Your task to perform on an android device: turn on sleep mode Image 0: 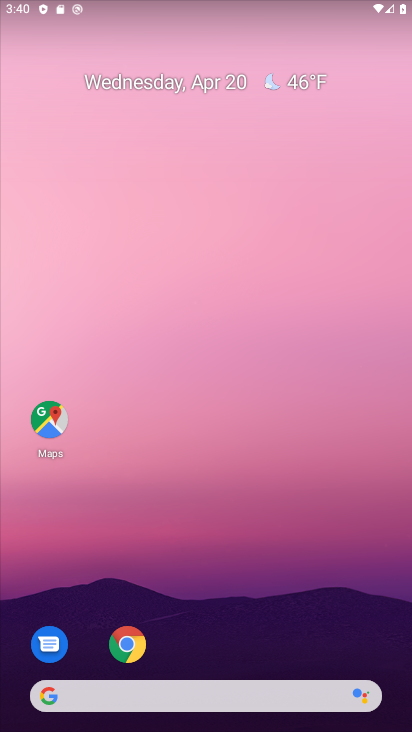
Step 0: drag from (209, 678) to (319, 48)
Your task to perform on an android device: turn on sleep mode Image 1: 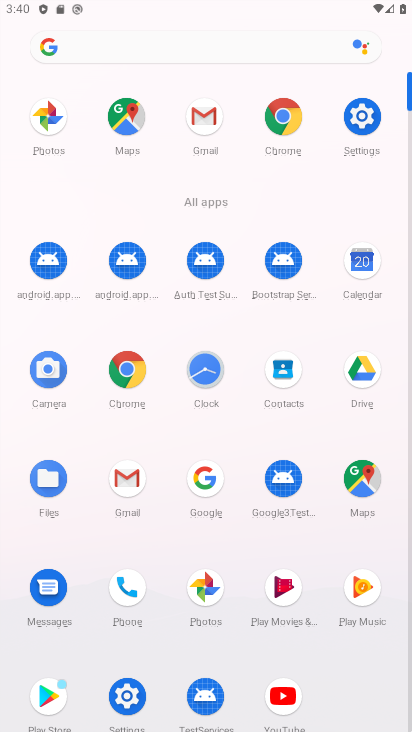
Step 1: click (126, 701)
Your task to perform on an android device: turn on sleep mode Image 2: 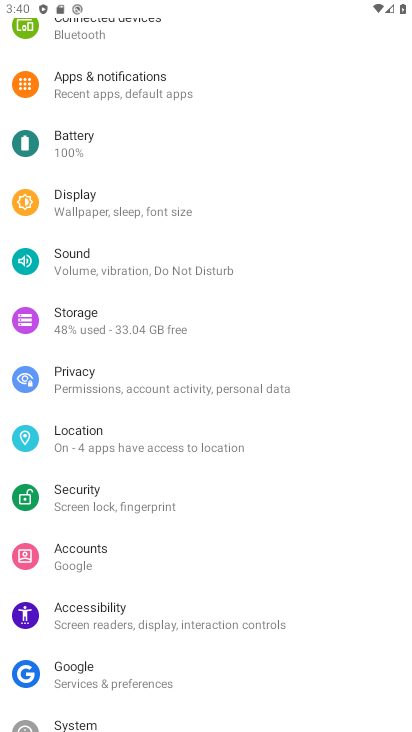
Step 2: click (107, 201)
Your task to perform on an android device: turn on sleep mode Image 3: 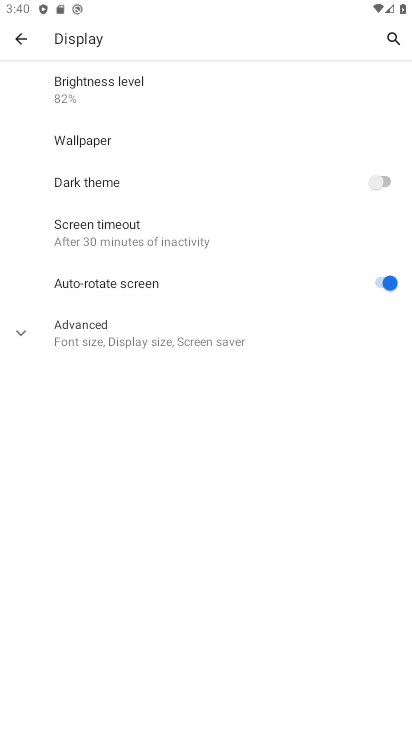
Step 3: click (178, 339)
Your task to perform on an android device: turn on sleep mode Image 4: 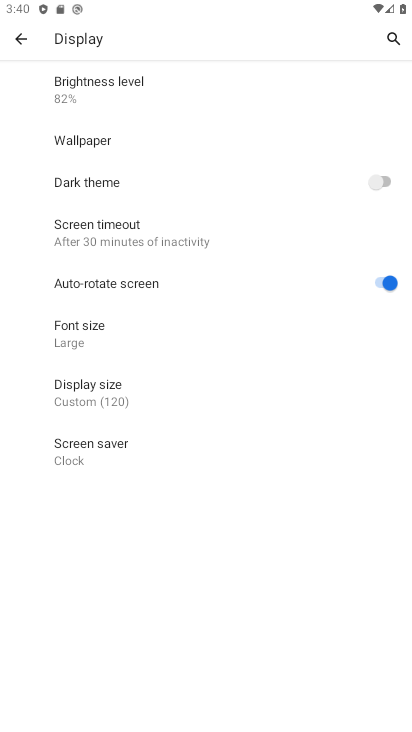
Step 4: task complete